Your task to perform on an android device: Go to Android settings Image 0: 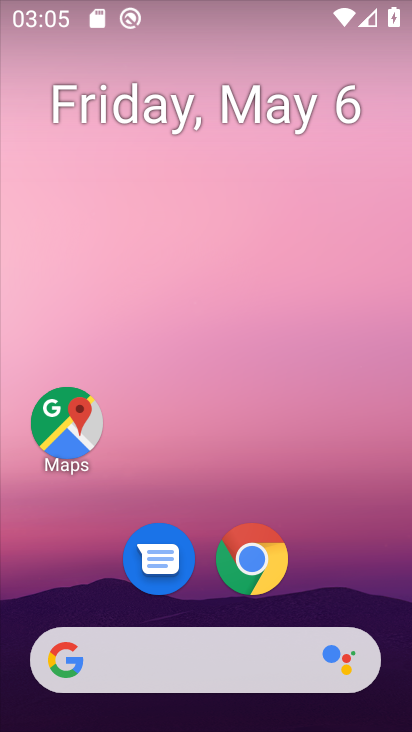
Step 0: drag from (307, 623) to (284, 11)
Your task to perform on an android device: Go to Android settings Image 1: 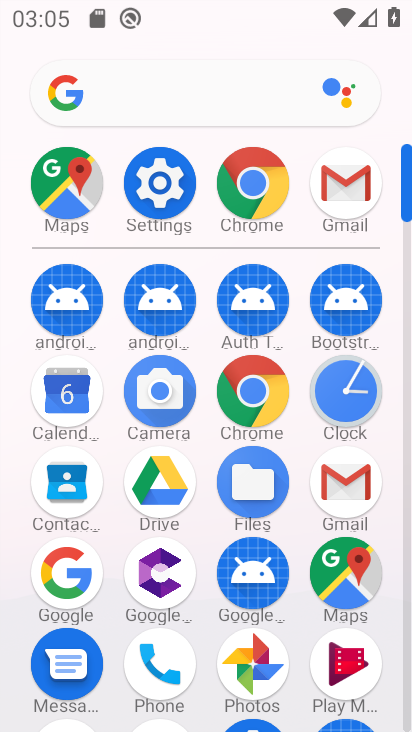
Step 1: click (155, 207)
Your task to perform on an android device: Go to Android settings Image 2: 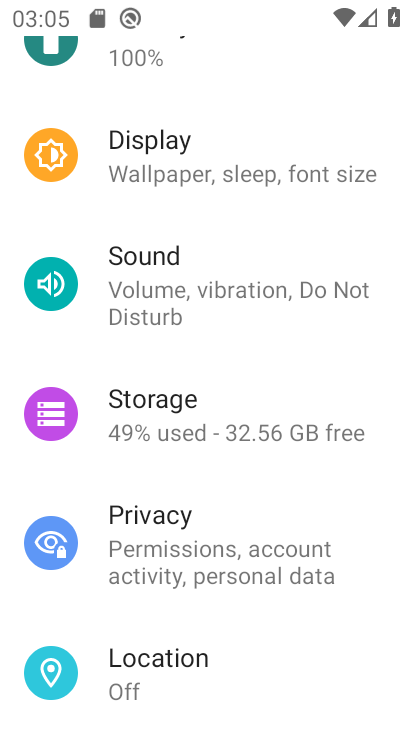
Step 2: drag from (191, 696) to (217, 101)
Your task to perform on an android device: Go to Android settings Image 3: 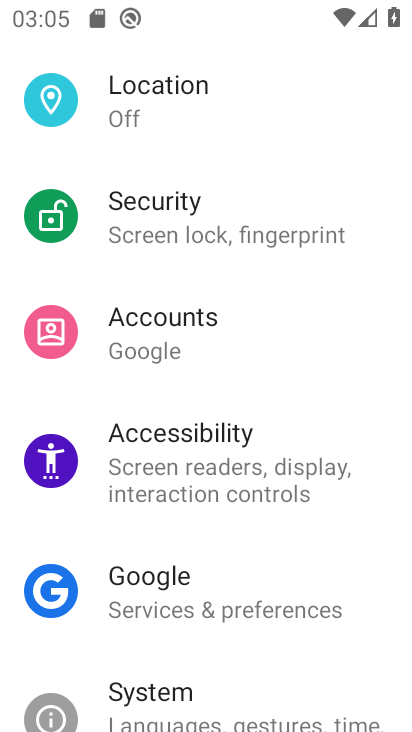
Step 3: drag from (147, 660) to (218, 98)
Your task to perform on an android device: Go to Android settings Image 4: 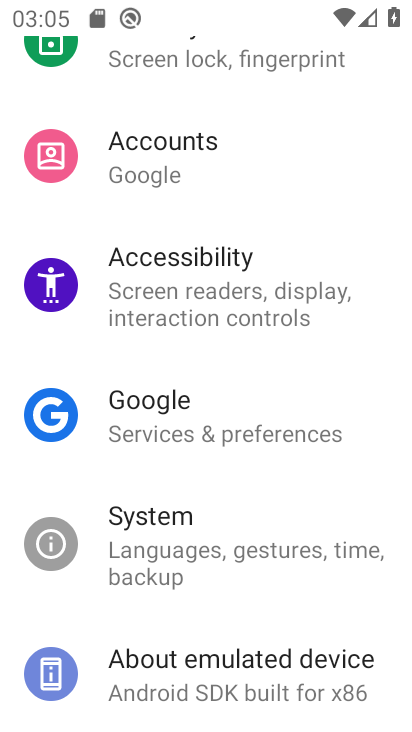
Step 4: click (228, 670)
Your task to perform on an android device: Go to Android settings Image 5: 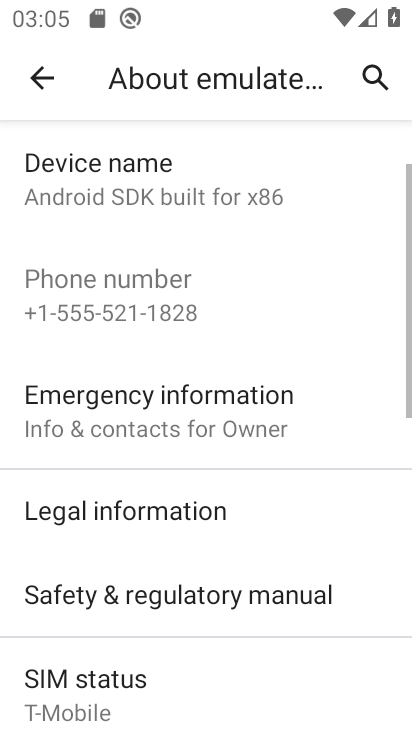
Step 5: drag from (172, 703) to (229, 192)
Your task to perform on an android device: Go to Android settings Image 6: 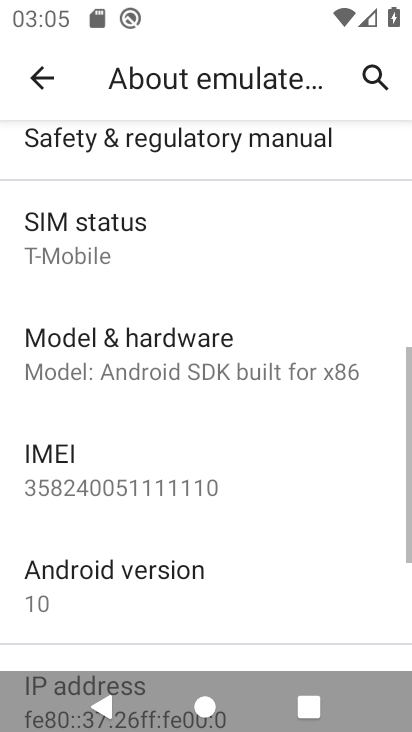
Step 6: drag from (207, 640) to (196, 225)
Your task to perform on an android device: Go to Android settings Image 7: 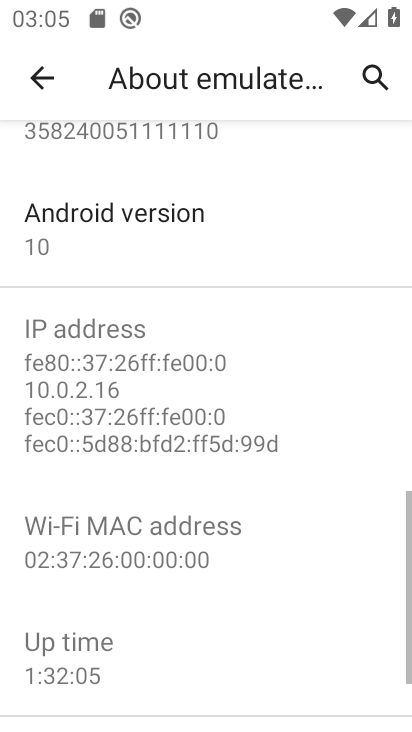
Step 7: click (218, 238)
Your task to perform on an android device: Go to Android settings Image 8: 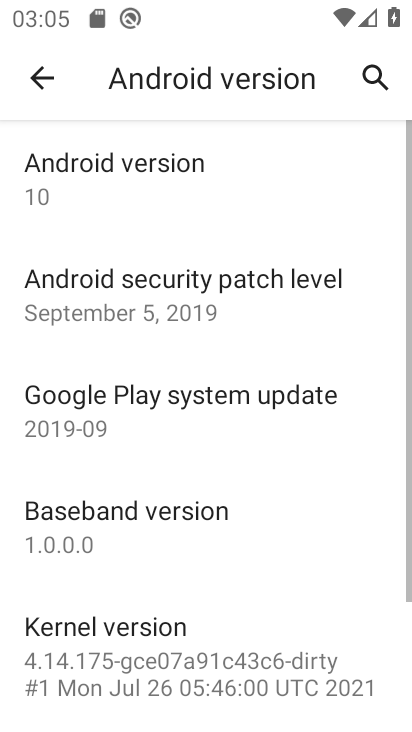
Step 8: task complete